Your task to perform on an android device: Add logitech g910 to the cart on ebay, then select checkout. Image 0: 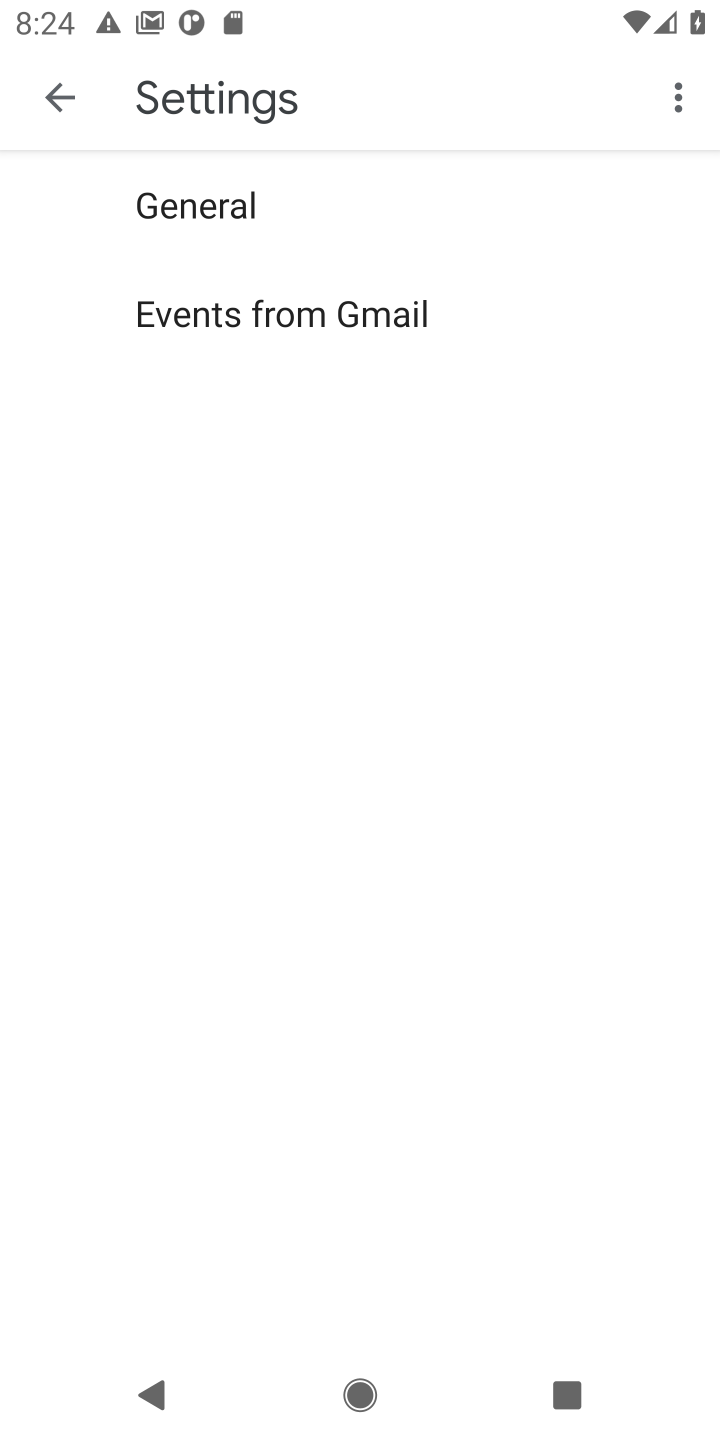
Step 0: press home button
Your task to perform on an android device: Add logitech g910 to the cart on ebay, then select checkout. Image 1: 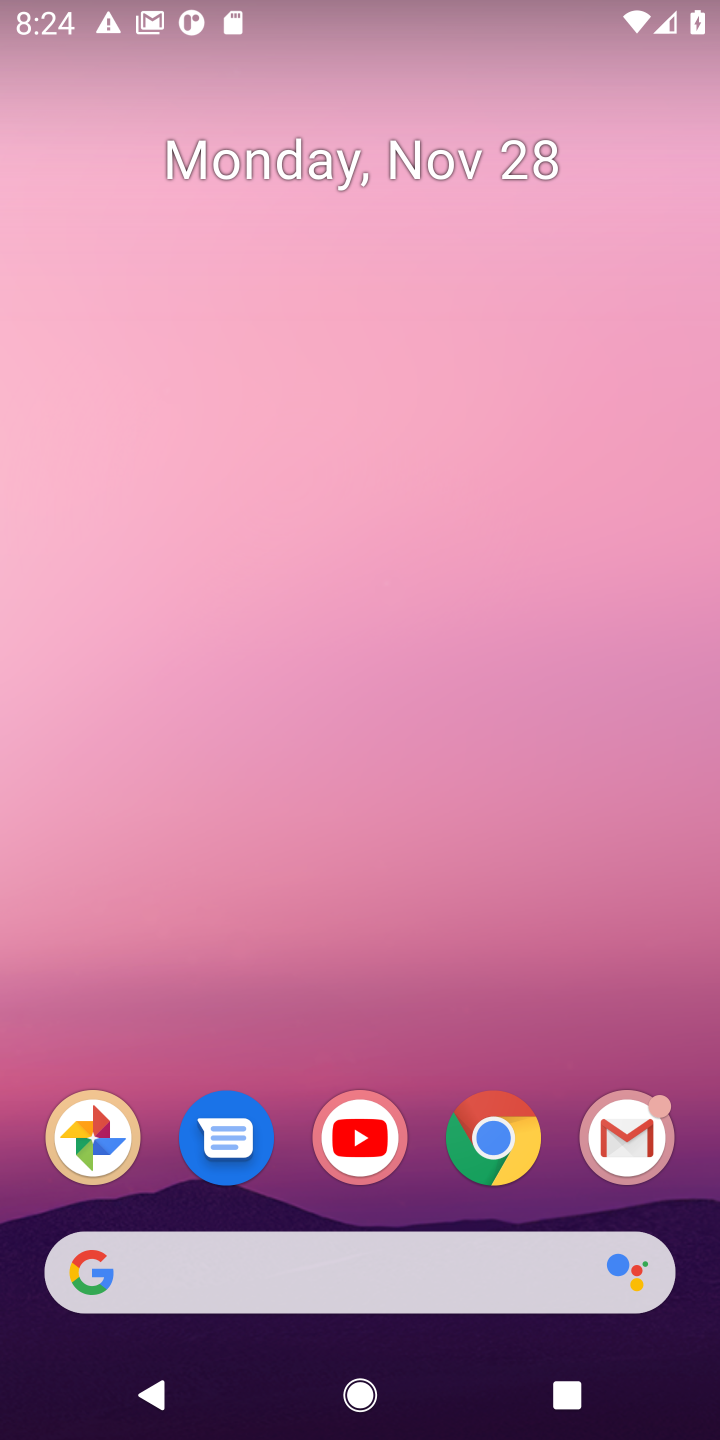
Step 1: click (500, 1153)
Your task to perform on an android device: Add logitech g910 to the cart on ebay, then select checkout. Image 2: 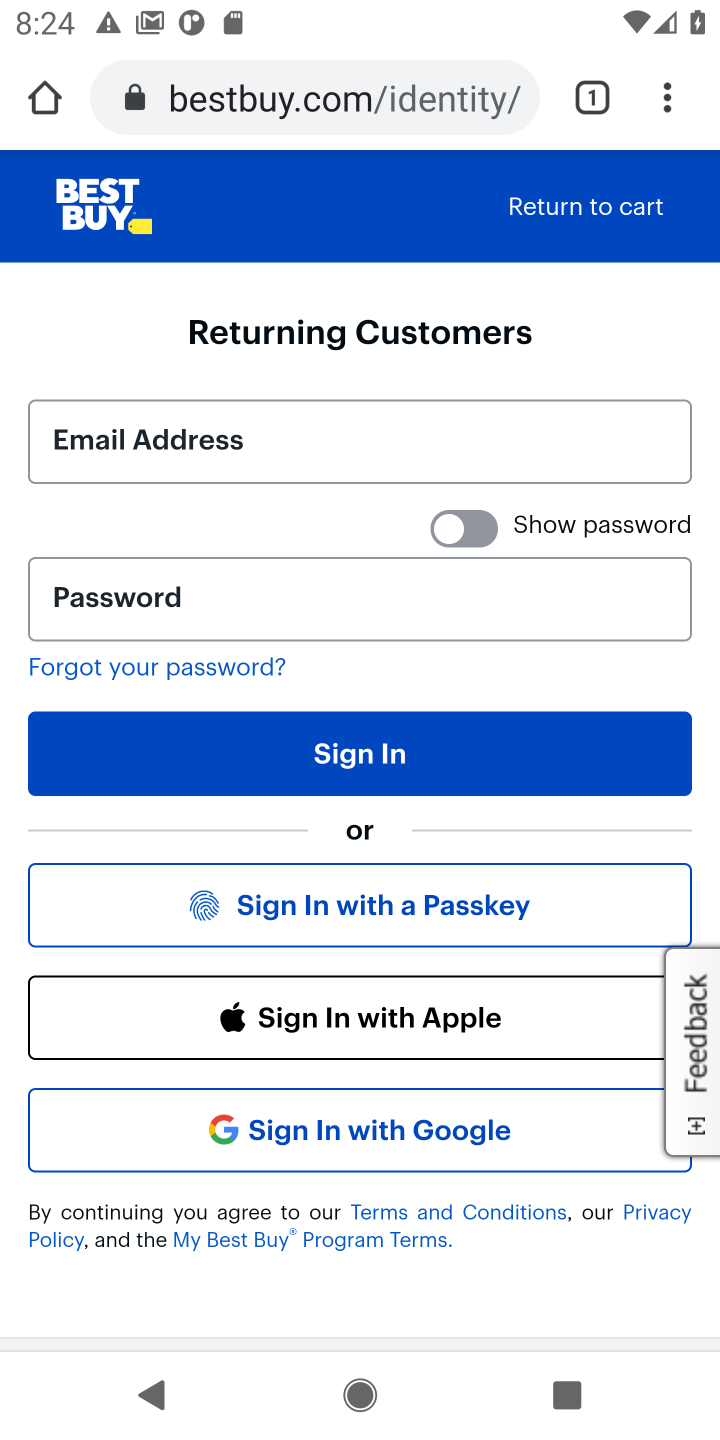
Step 2: click (265, 97)
Your task to perform on an android device: Add logitech g910 to the cart on ebay, then select checkout. Image 3: 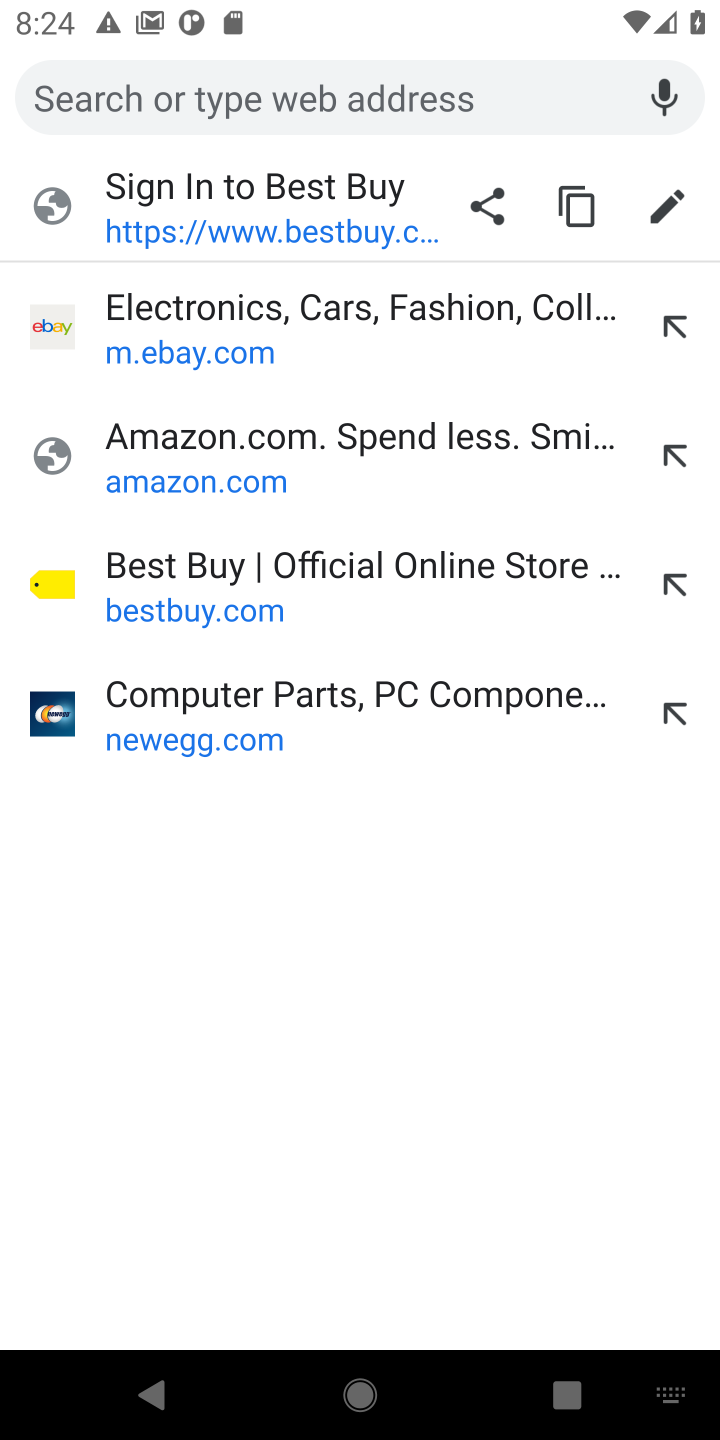
Step 3: click (152, 331)
Your task to perform on an android device: Add logitech g910 to the cart on ebay, then select checkout. Image 4: 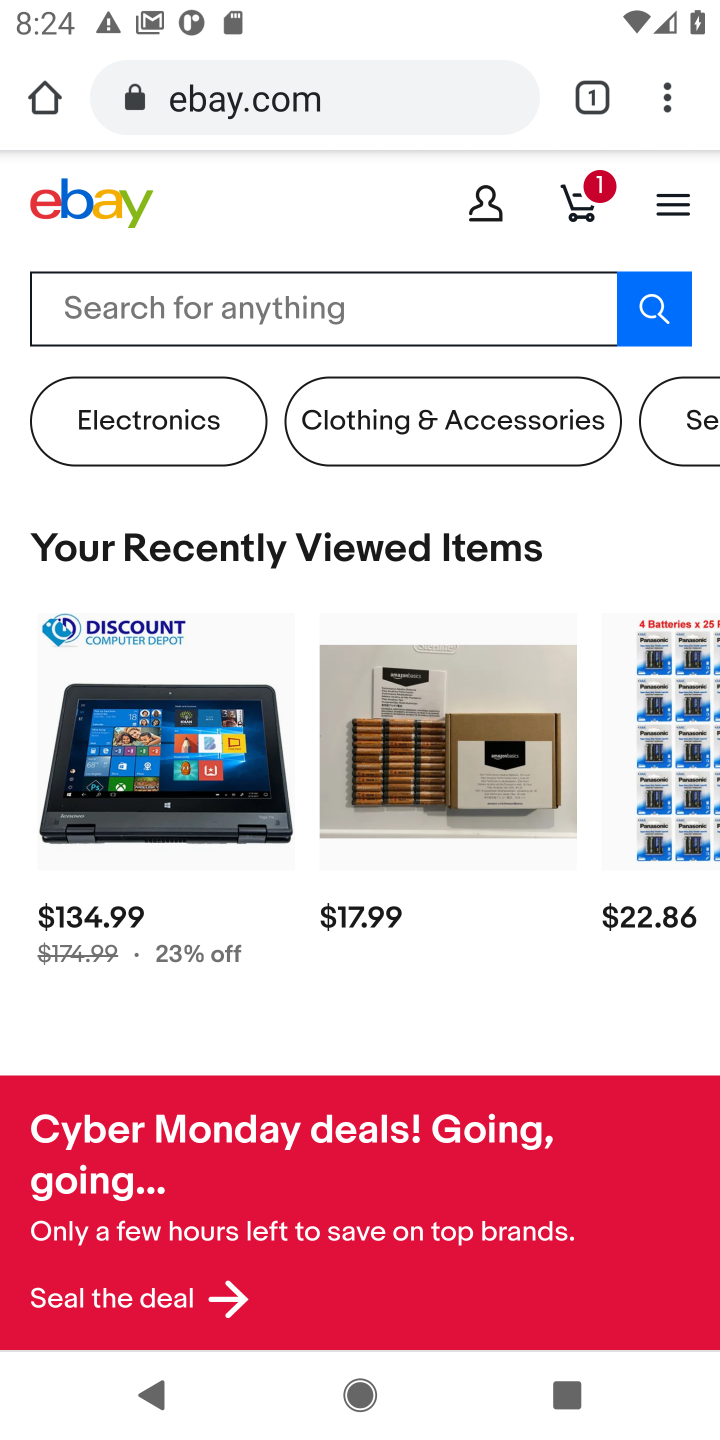
Step 4: click (200, 308)
Your task to perform on an android device: Add logitech g910 to the cart on ebay, then select checkout. Image 5: 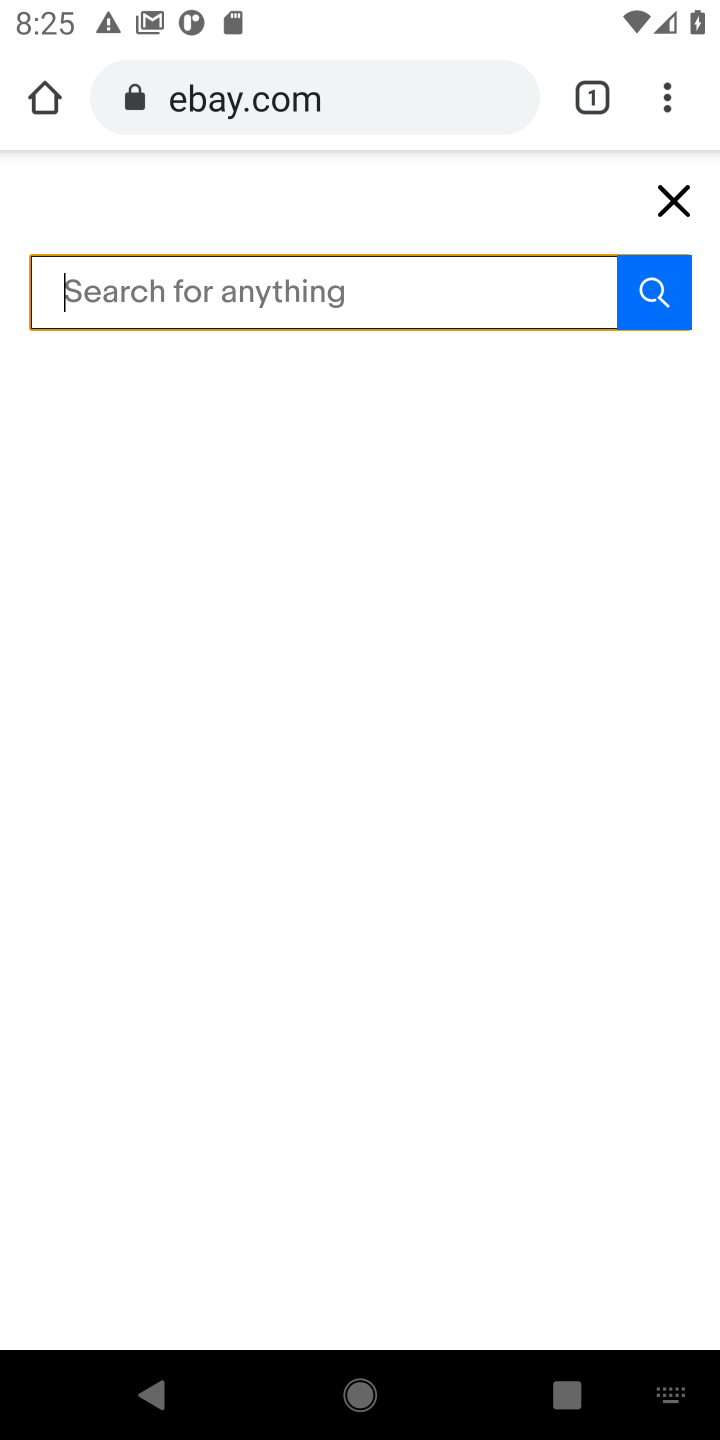
Step 5: type "logitech g910"
Your task to perform on an android device: Add logitech g910 to the cart on ebay, then select checkout. Image 6: 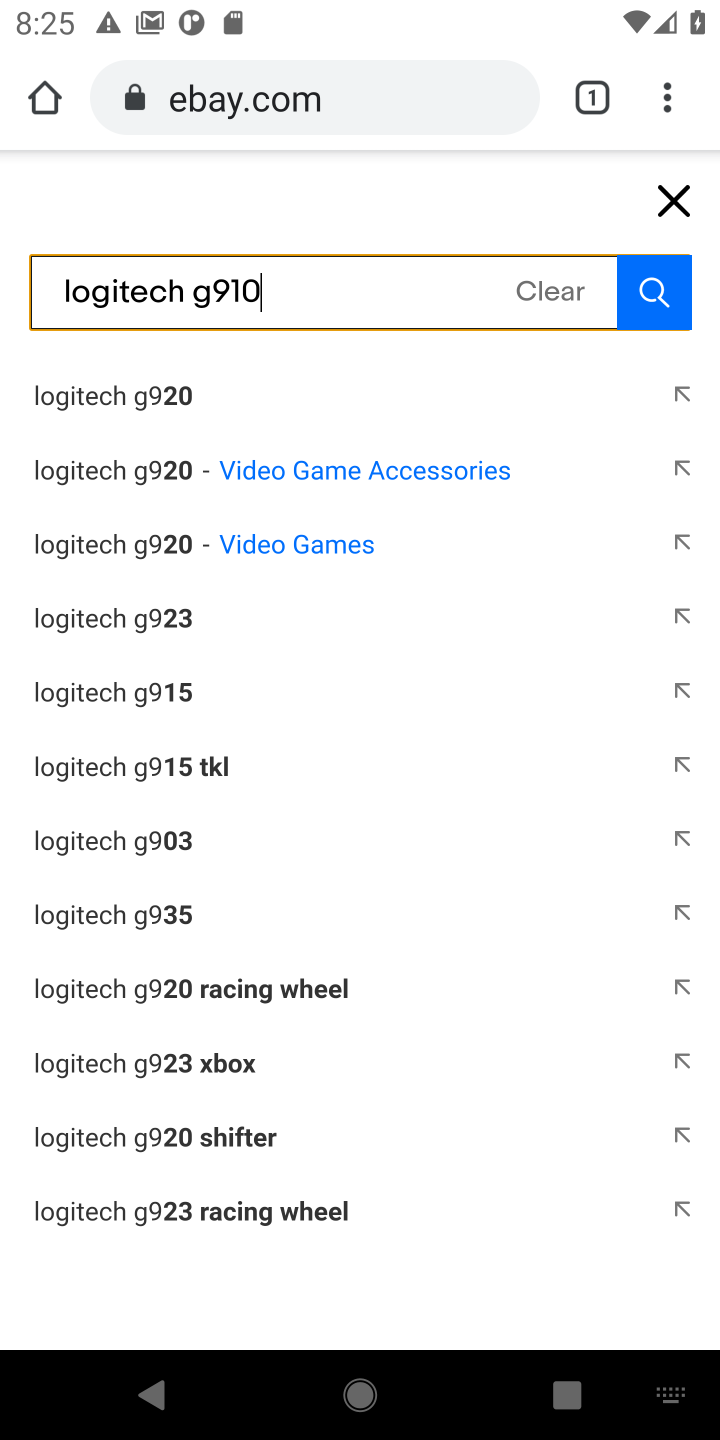
Step 6: click (641, 294)
Your task to perform on an android device: Add logitech g910 to the cart on ebay, then select checkout. Image 7: 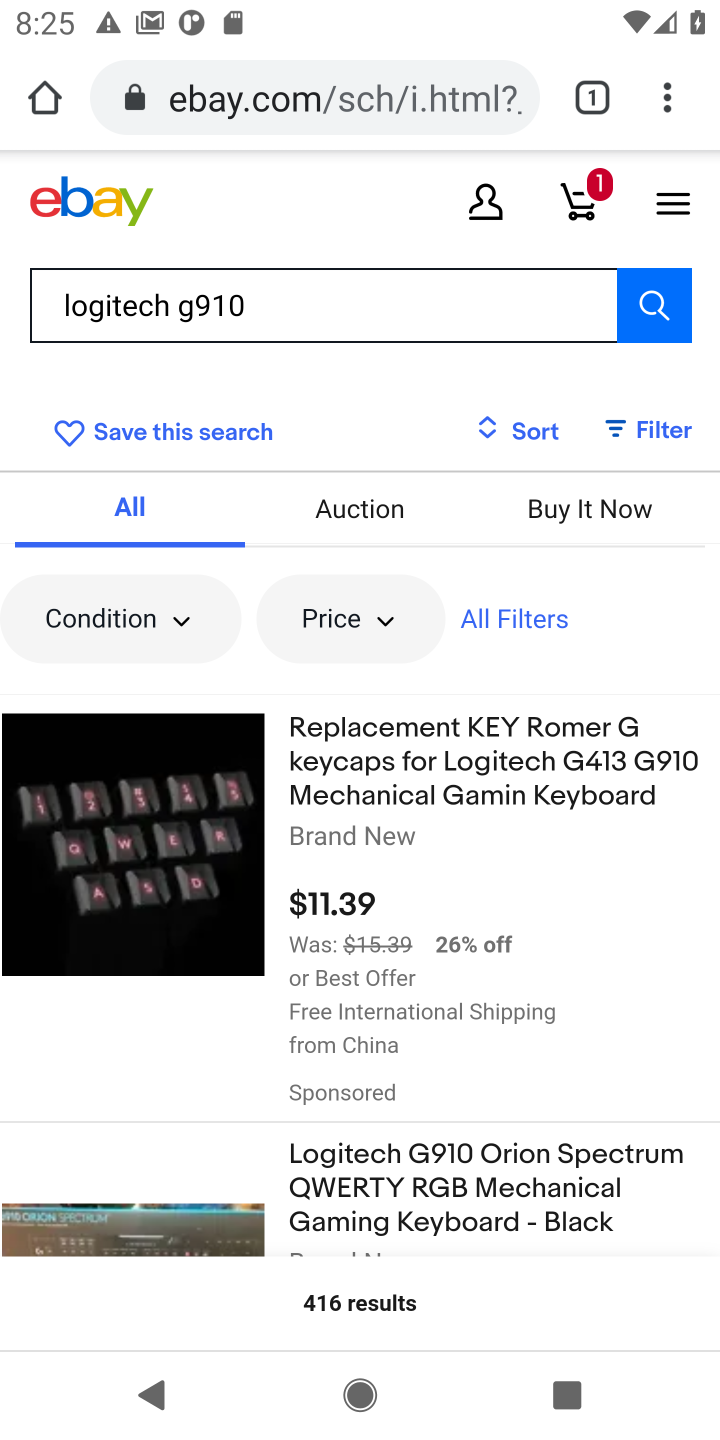
Step 7: click (329, 793)
Your task to perform on an android device: Add logitech g910 to the cart on ebay, then select checkout. Image 8: 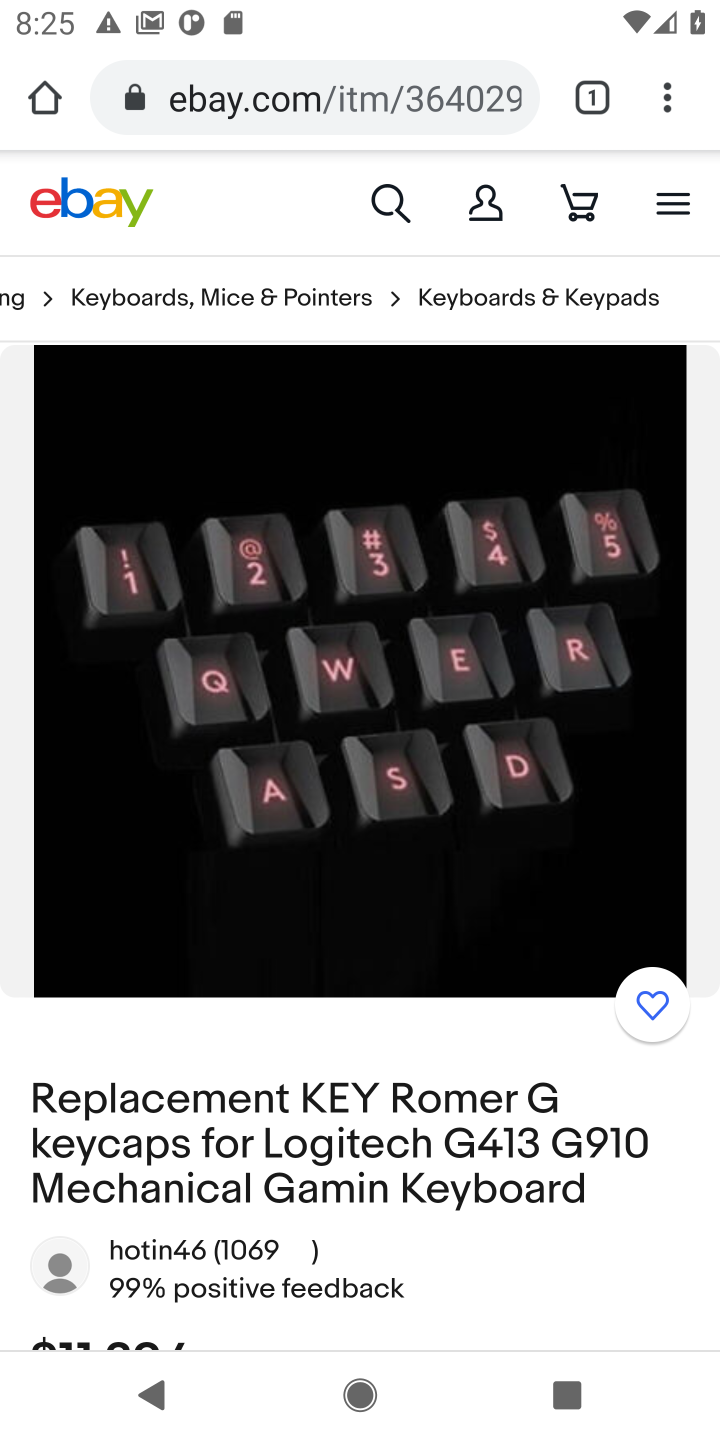
Step 8: drag from (351, 1133) to (418, 616)
Your task to perform on an android device: Add logitech g910 to the cart on ebay, then select checkout. Image 9: 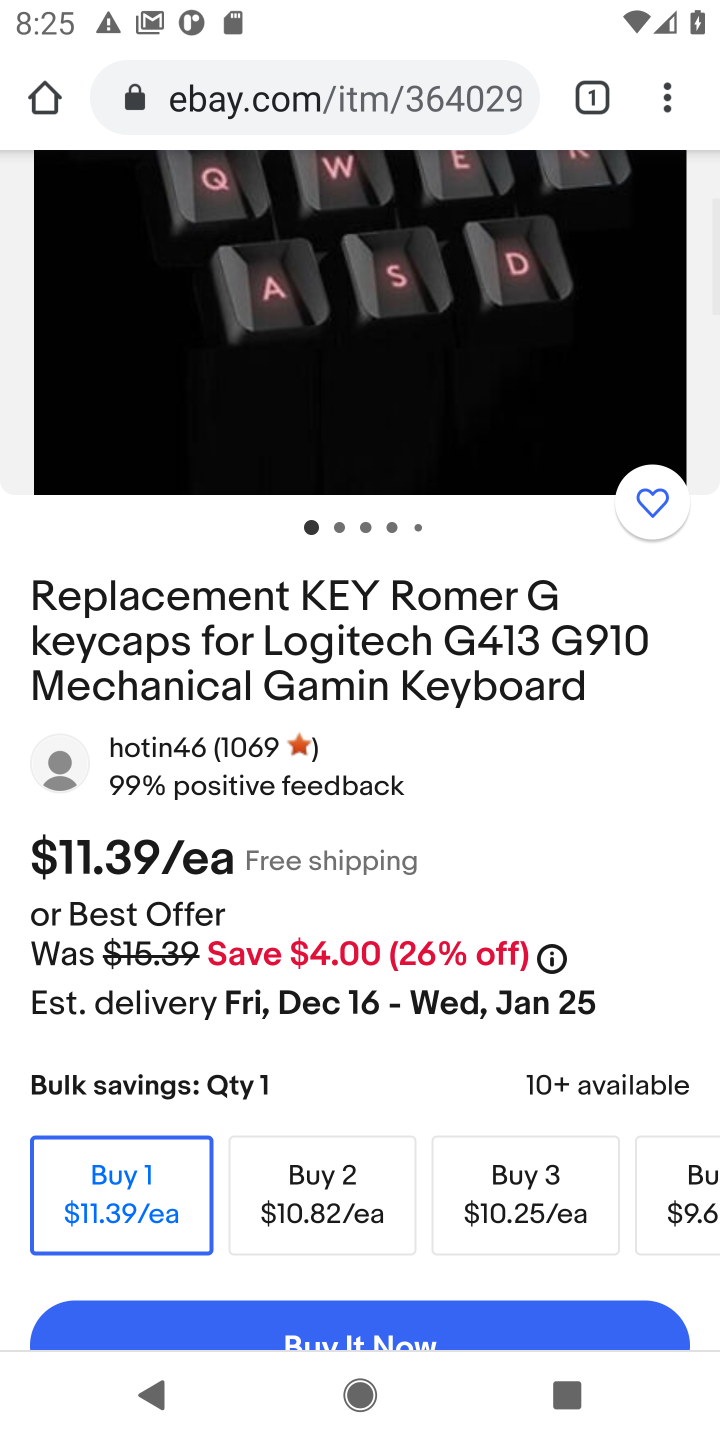
Step 9: drag from (391, 1005) to (403, 568)
Your task to perform on an android device: Add logitech g910 to the cart on ebay, then select checkout. Image 10: 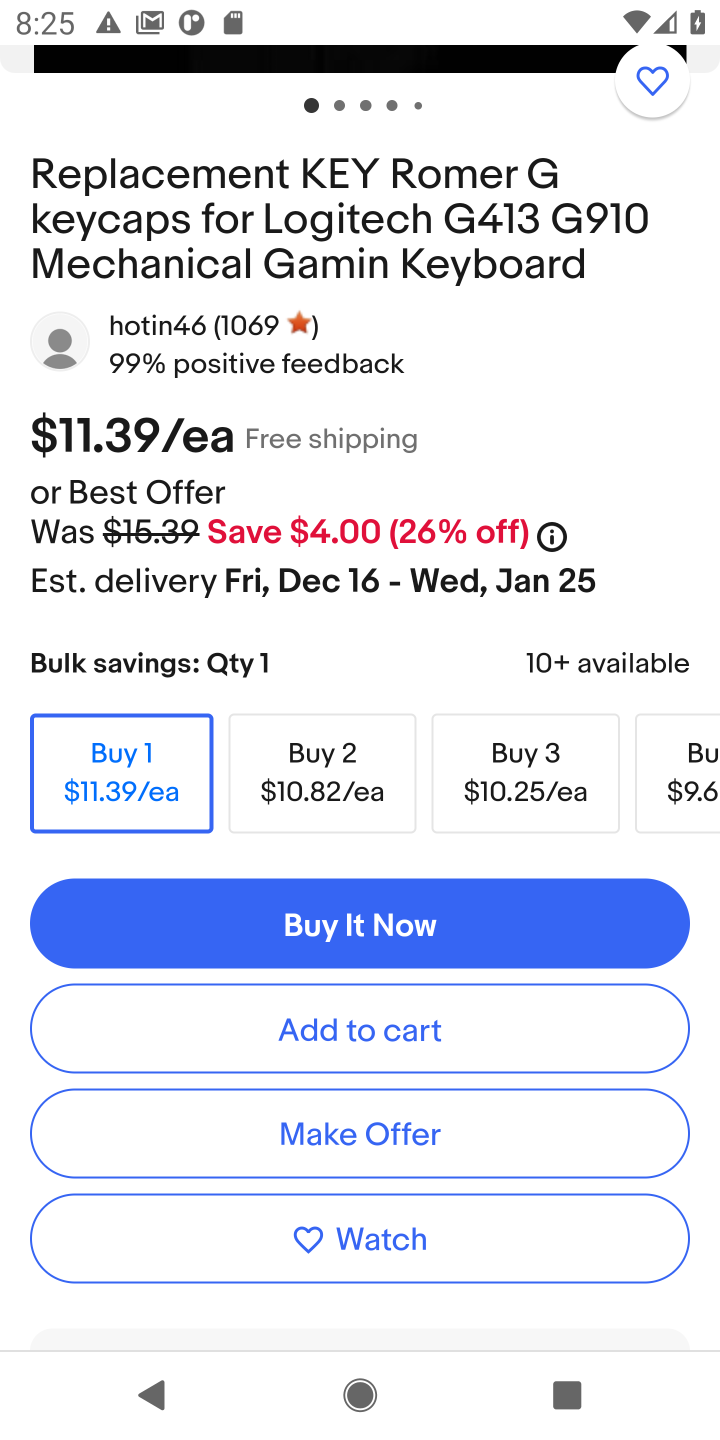
Step 10: click (325, 1042)
Your task to perform on an android device: Add logitech g910 to the cart on ebay, then select checkout. Image 11: 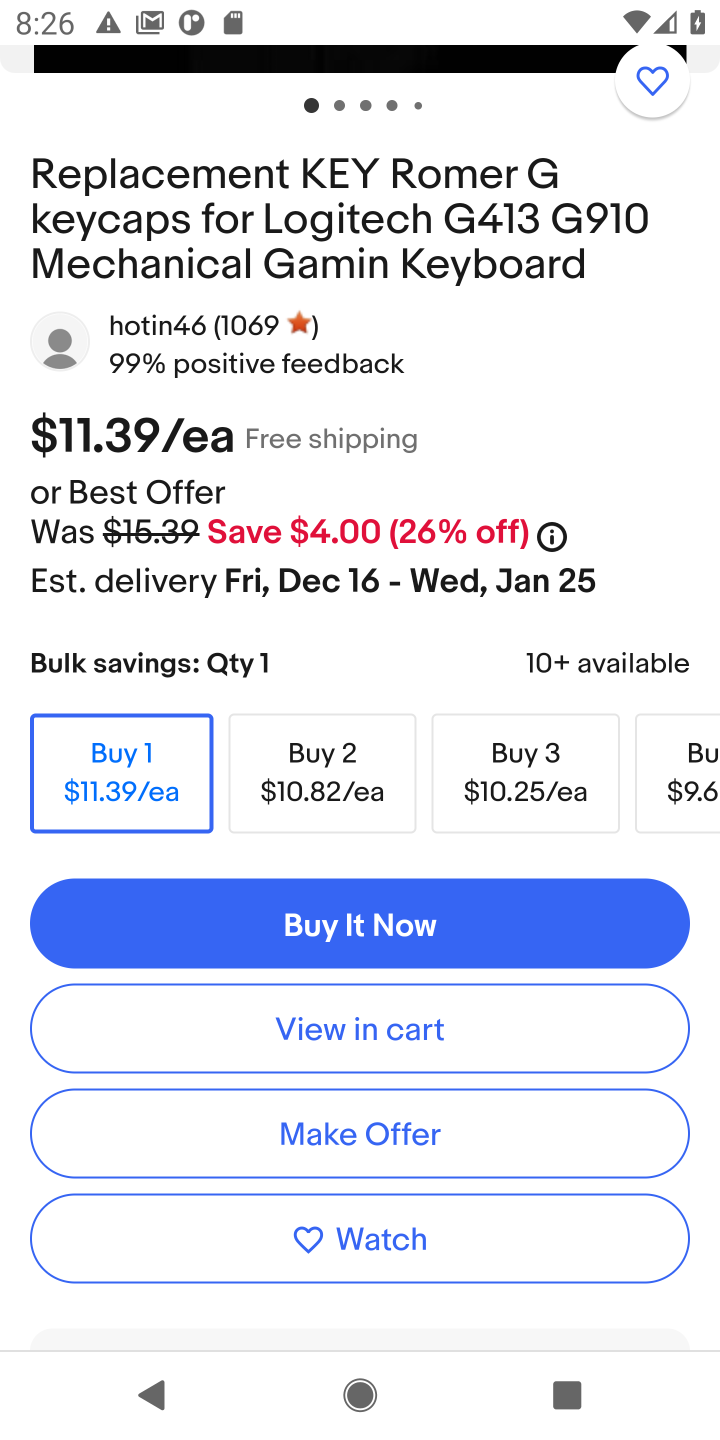
Step 11: click (327, 1019)
Your task to perform on an android device: Add logitech g910 to the cart on ebay, then select checkout. Image 12: 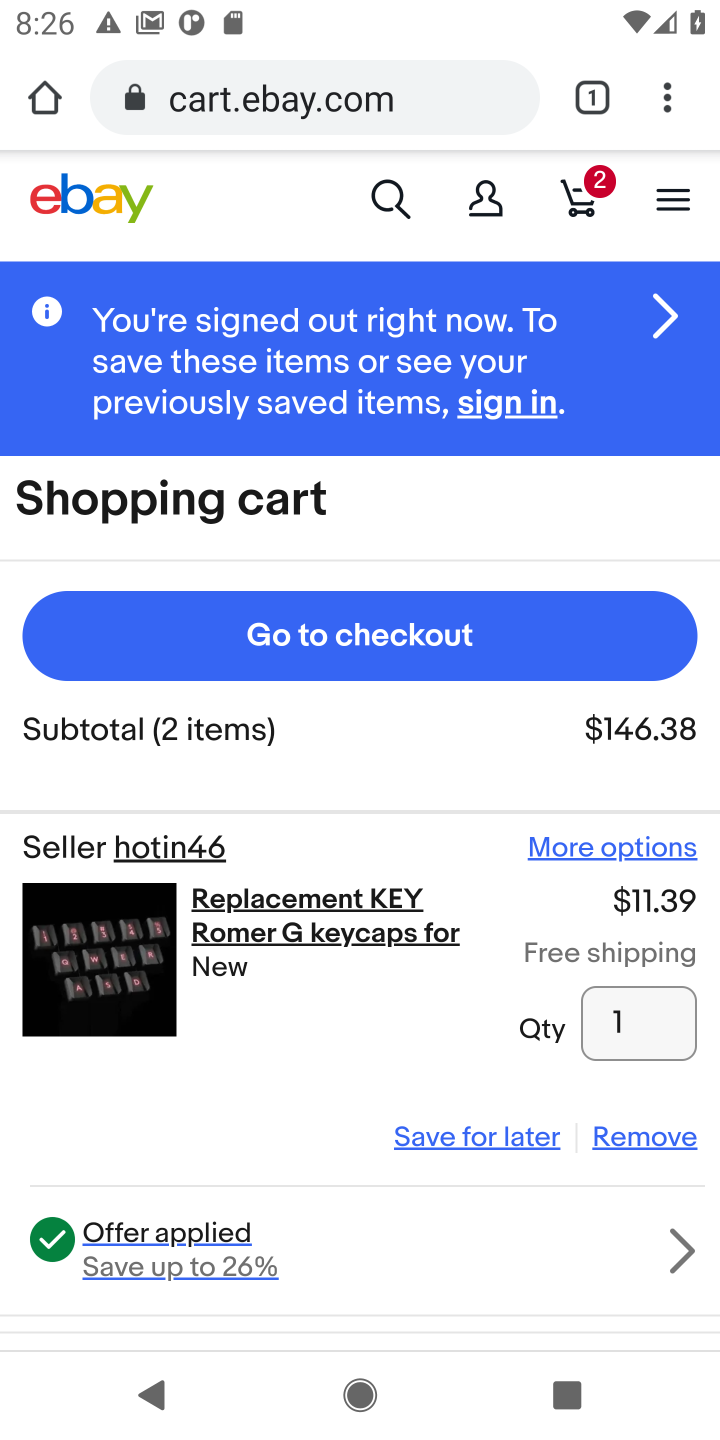
Step 12: click (331, 649)
Your task to perform on an android device: Add logitech g910 to the cart on ebay, then select checkout. Image 13: 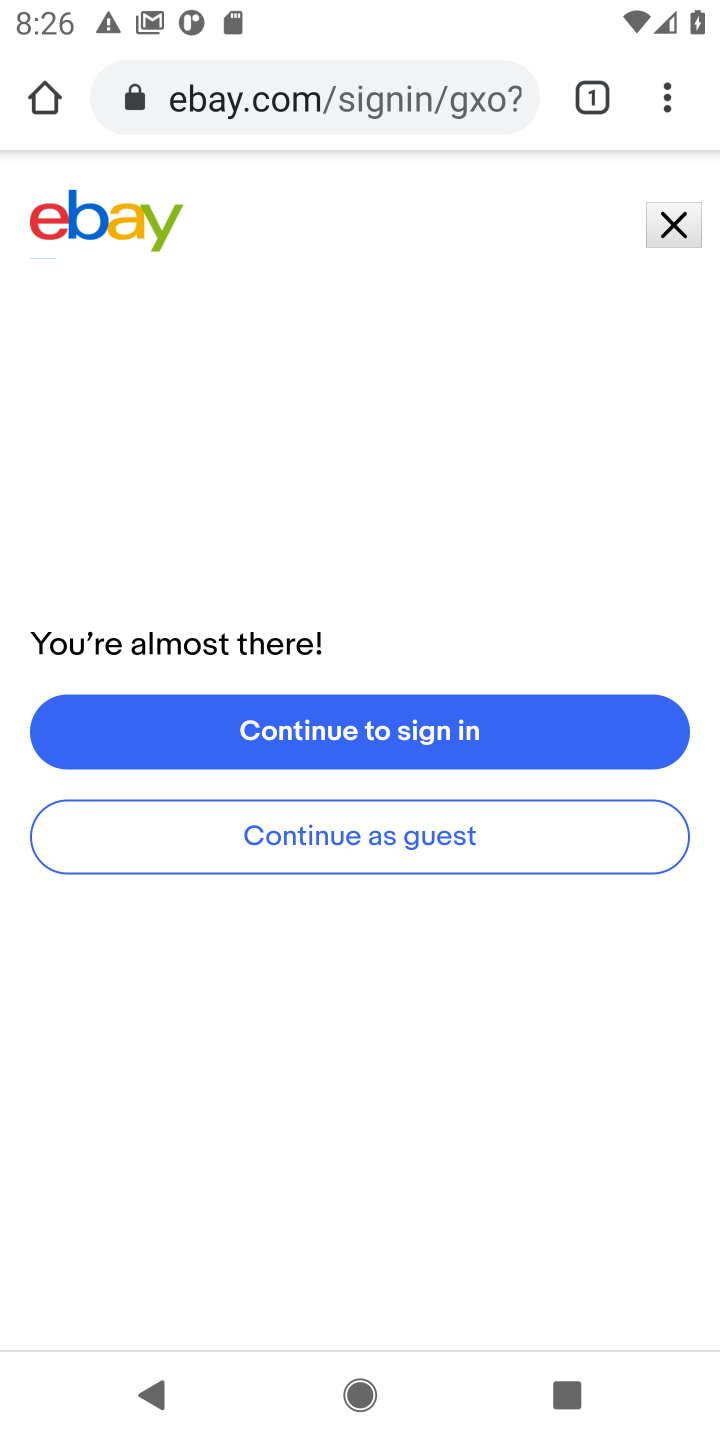
Step 13: task complete